Your task to perform on an android device: change notifications settings Image 0: 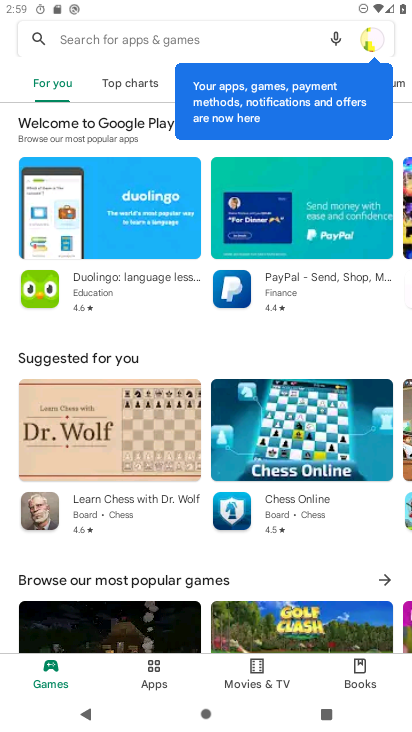
Step 0: press home button
Your task to perform on an android device: change notifications settings Image 1: 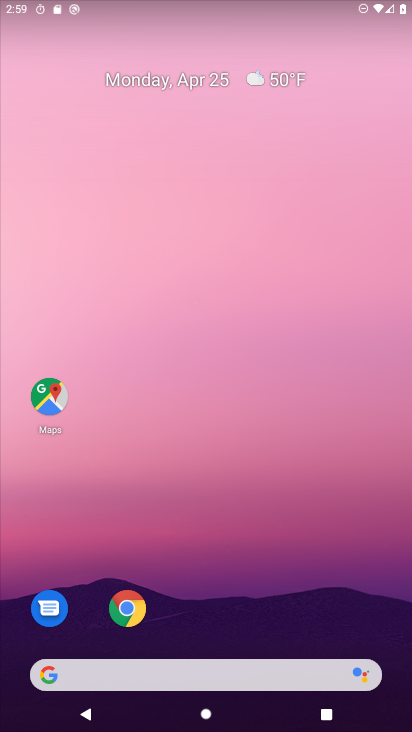
Step 1: drag from (210, 637) to (258, 234)
Your task to perform on an android device: change notifications settings Image 2: 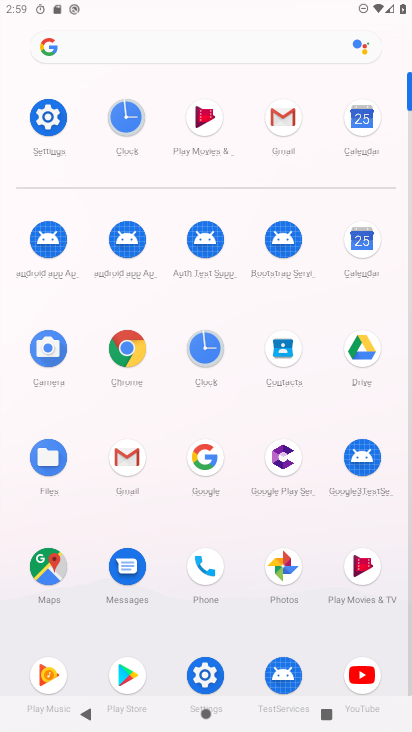
Step 2: click (41, 121)
Your task to perform on an android device: change notifications settings Image 3: 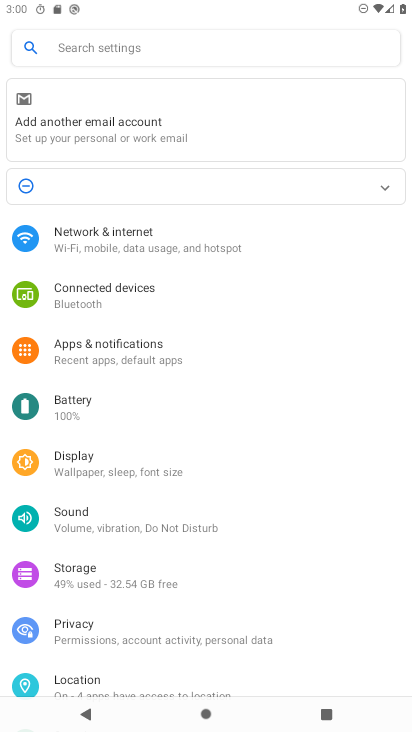
Step 3: click (148, 349)
Your task to perform on an android device: change notifications settings Image 4: 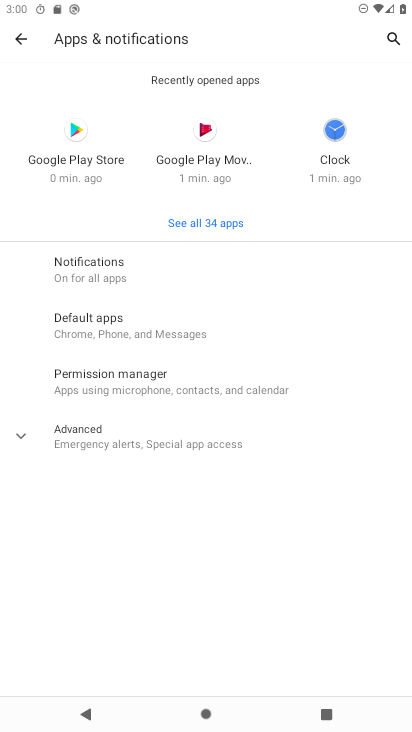
Step 4: click (103, 448)
Your task to perform on an android device: change notifications settings Image 5: 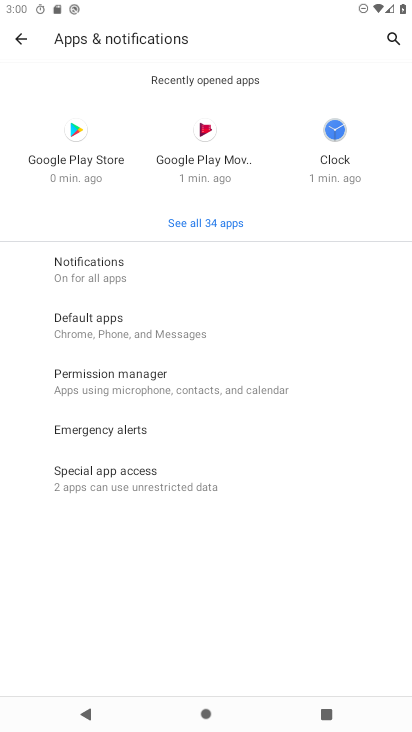
Step 5: click (119, 284)
Your task to perform on an android device: change notifications settings Image 6: 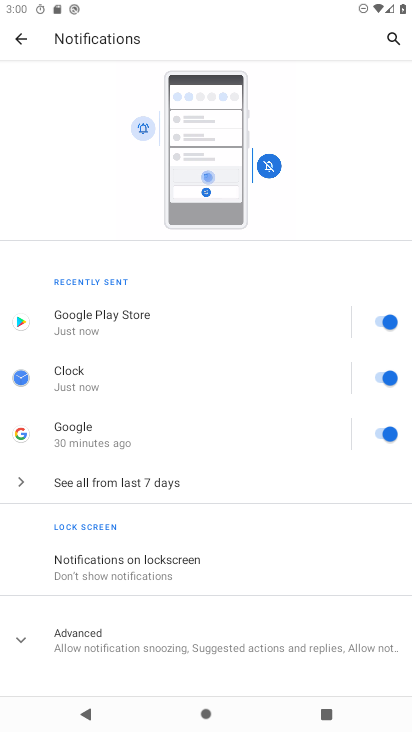
Step 6: click (152, 569)
Your task to perform on an android device: change notifications settings Image 7: 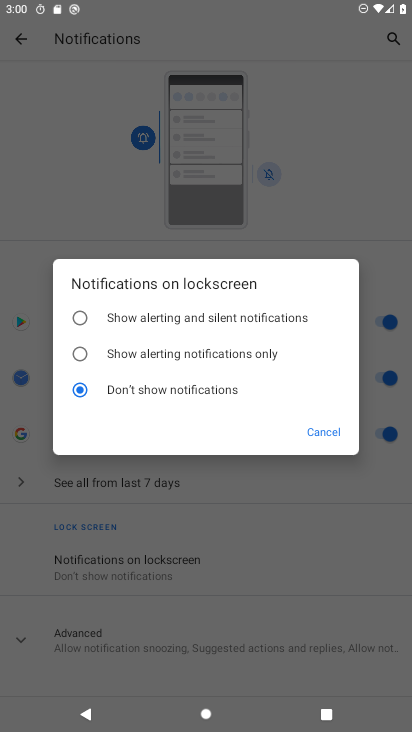
Step 7: click (151, 323)
Your task to perform on an android device: change notifications settings Image 8: 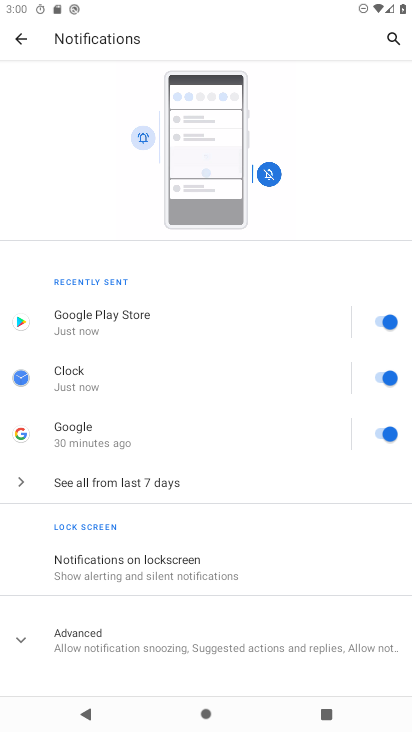
Step 8: task complete